Your task to perform on an android device: toggle show notifications on the lock screen Image 0: 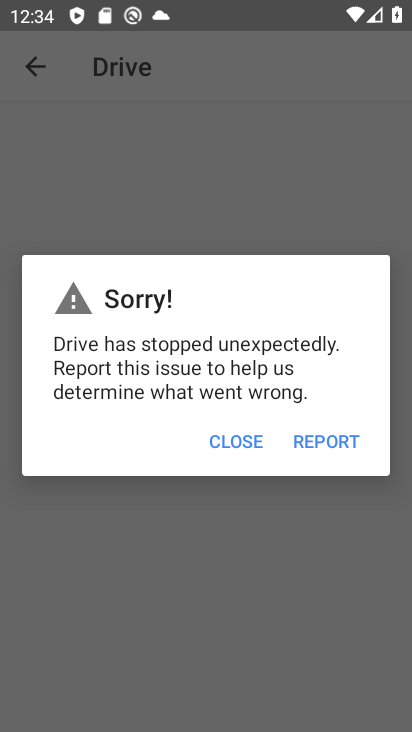
Step 0: press home button
Your task to perform on an android device: toggle show notifications on the lock screen Image 1: 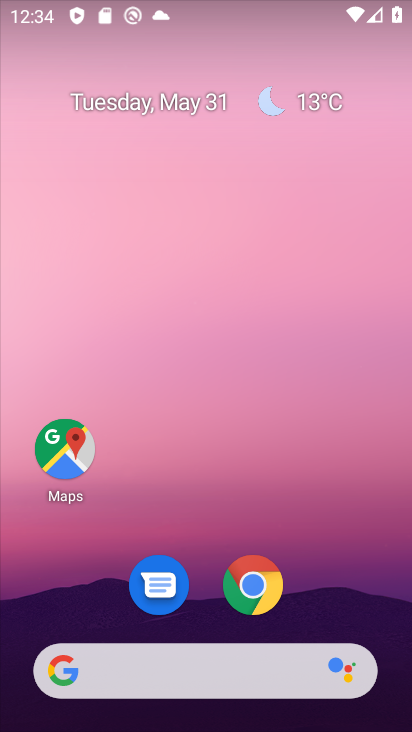
Step 1: drag from (210, 516) to (271, 10)
Your task to perform on an android device: toggle show notifications on the lock screen Image 2: 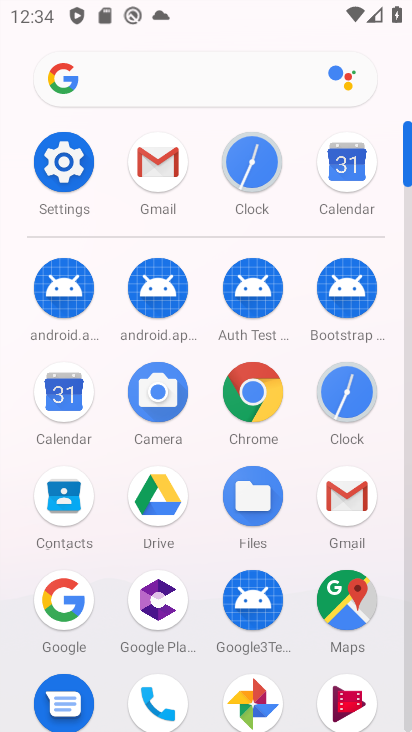
Step 2: click (69, 172)
Your task to perform on an android device: toggle show notifications on the lock screen Image 3: 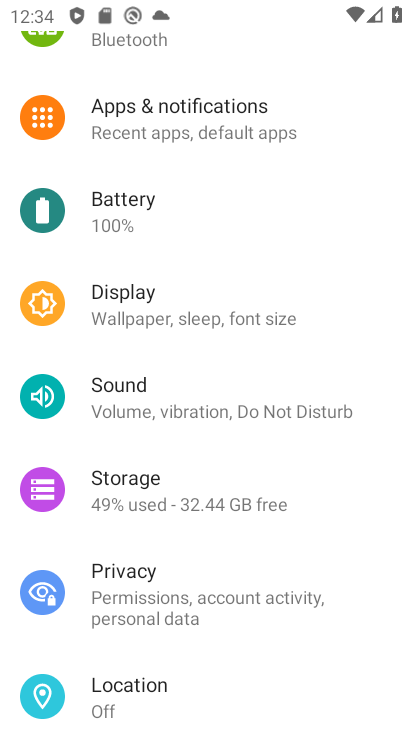
Step 3: click (233, 115)
Your task to perform on an android device: toggle show notifications on the lock screen Image 4: 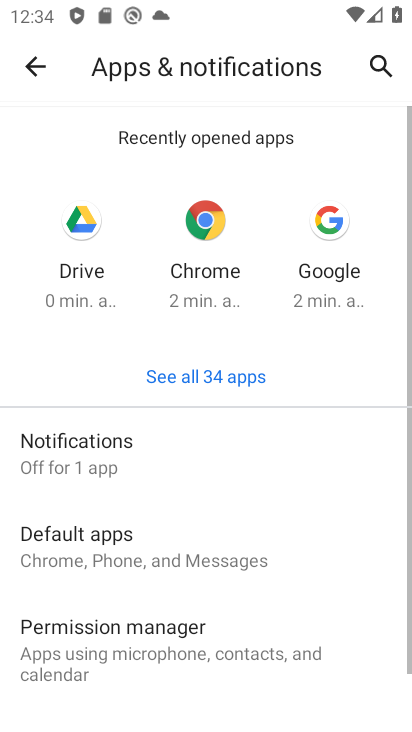
Step 4: click (151, 438)
Your task to perform on an android device: toggle show notifications on the lock screen Image 5: 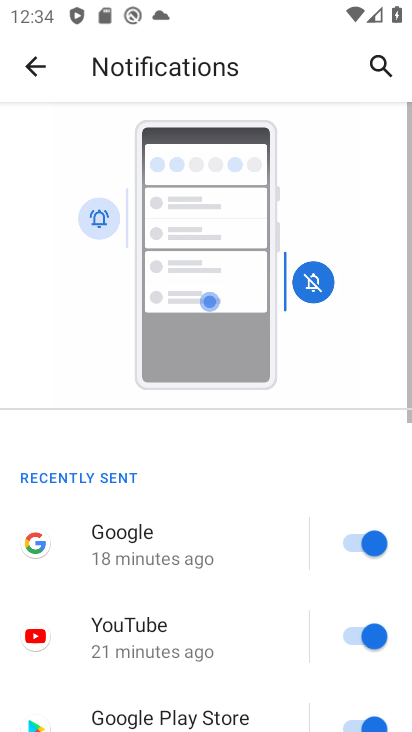
Step 5: drag from (208, 534) to (286, 131)
Your task to perform on an android device: toggle show notifications on the lock screen Image 6: 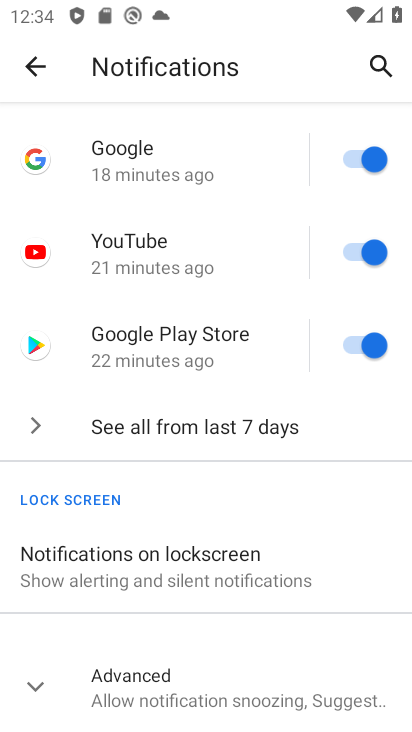
Step 6: click (193, 562)
Your task to perform on an android device: toggle show notifications on the lock screen Image 7: 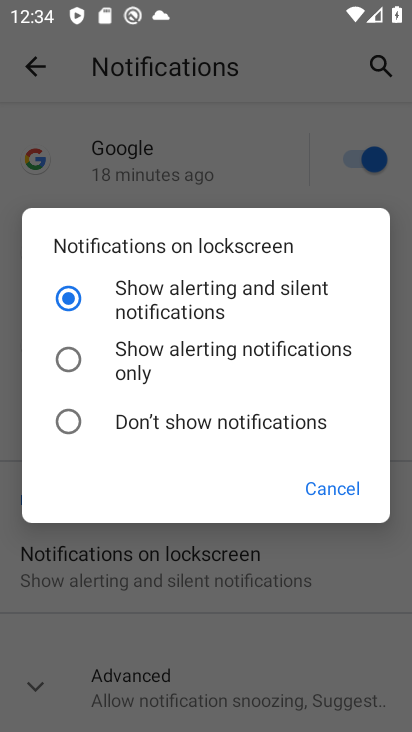
Step 7: click (66, 410)
Your task to perform on an android device: toggle show notifications on the lock screen Image 8: 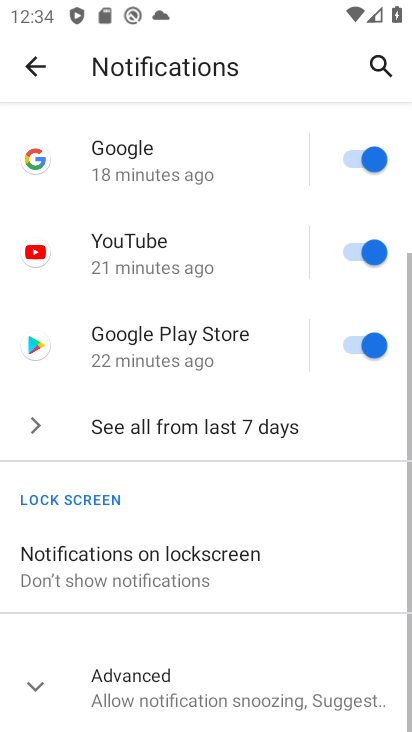
Step 8: task complete